Your task to perform on an android device: Play the last video I watched on Youtube Image 0: 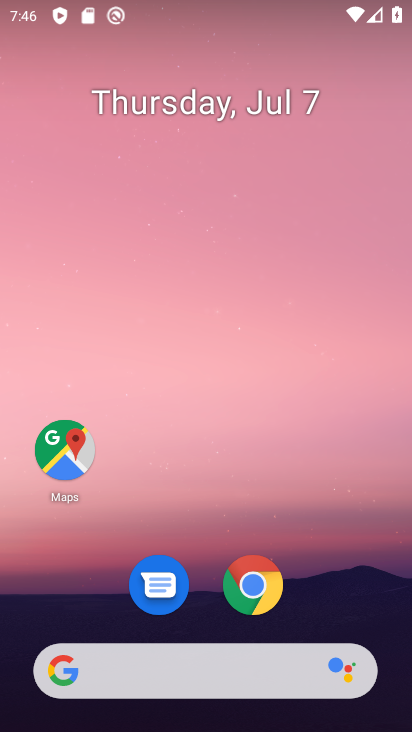
Step 0: drag from (212, 492) to (219, 23)
Your task to perform on an android device: Play the last video I watched on Youtube Image 1: 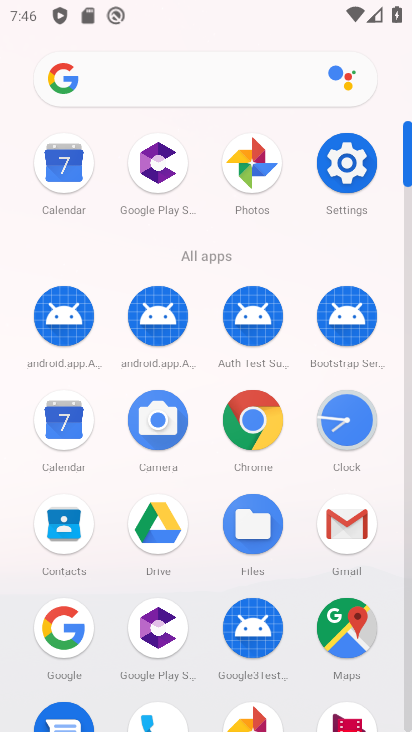
Step 1: drag from (201, 511) to (220, 137)
Your task to perform on an android device: Play the last video I watched on Youtube Image 2: 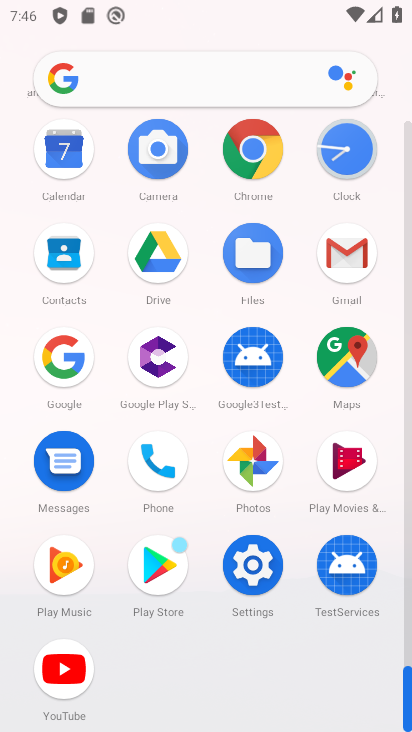
Step 2: click (76, 662)
Your task to perform on an android device: Play the last video I watched on Youtube Image 3: 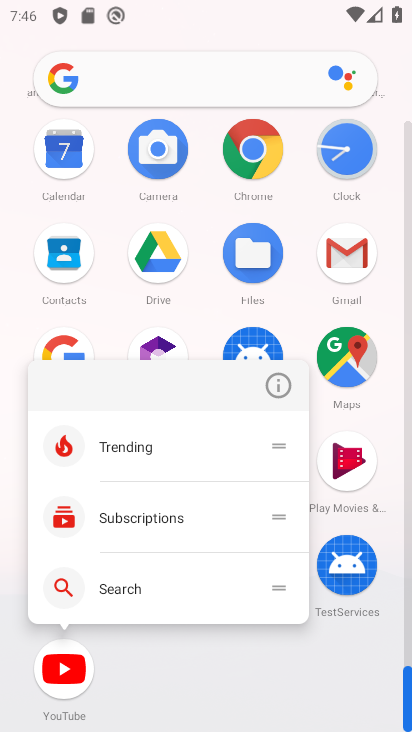
Step 3: click (76, 662)
Your task to perform on an android device: Play the last video I watched on Youtube Image 4: 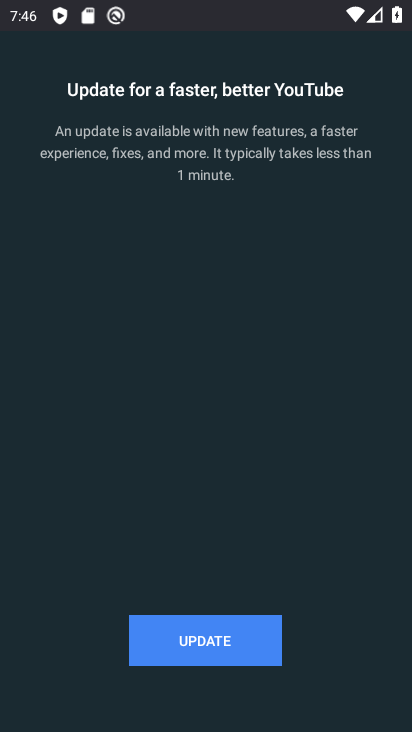
Step 4: click (218, 653)
Your task to perform on an android device: Play the last video I watched on Youtube Image 5: 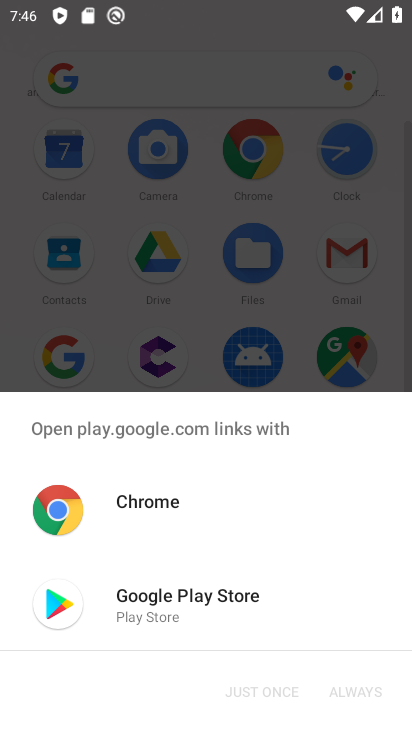
Step 5: click (196, 597)
Your task to perform on an android device: Play the last video I watched on Youtube Image 6: 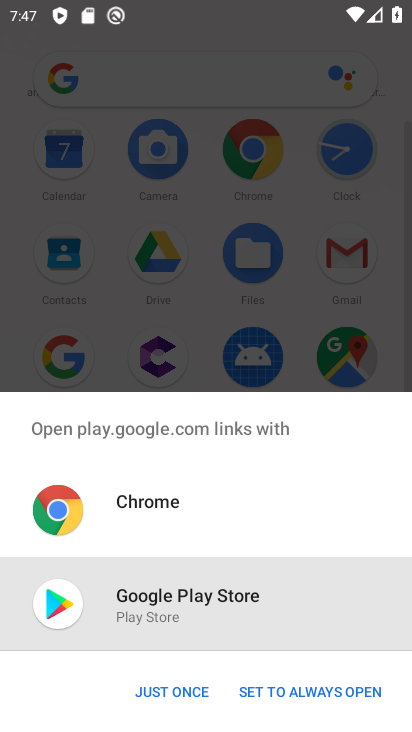
Step 6: click (174, 690)
Your task to perform on an android device: Play the last video I watched on Youtube Image 7: 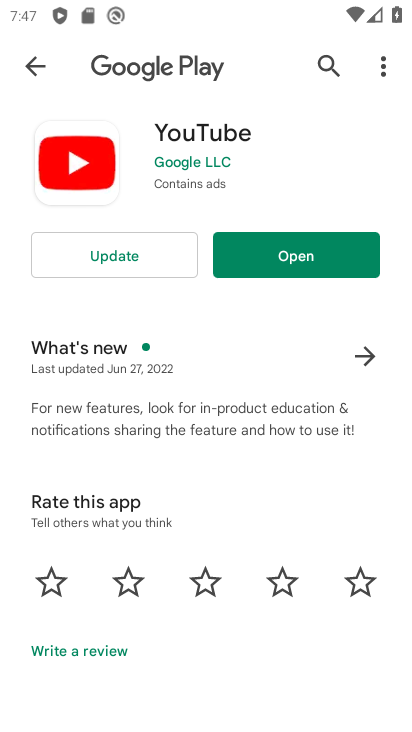
Step 7: click (172, 256)
Your task to perform on an android device: Play the last video I watched on Youtube Image 8: 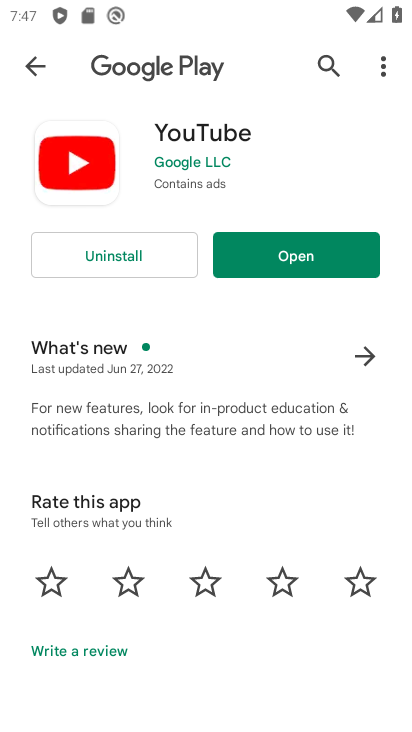
Step 8: click (321, 266)
Your task to perform on an android device: Play the last video I watched on Youtube Image 9: 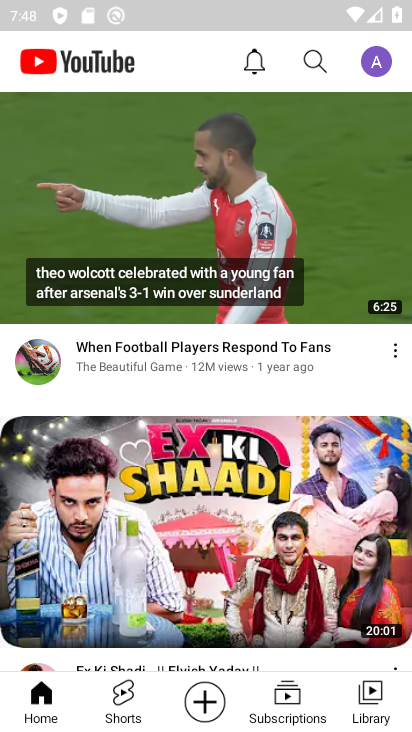
Step 9: click (364, 685)
Your task to perform on an android device: Play the last video I watched on Youtube Image 10: 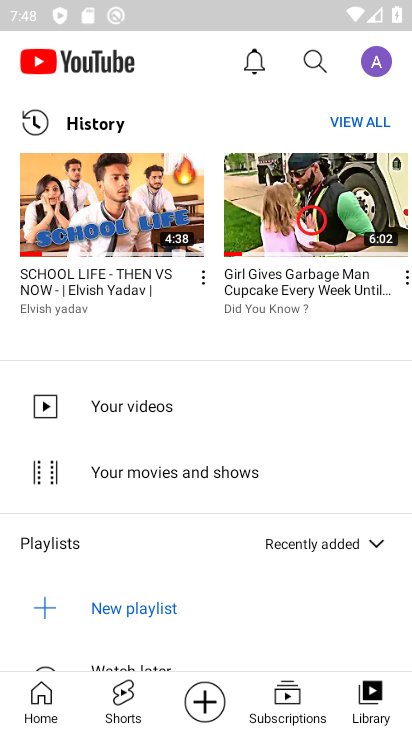
Step 10: click (123, 217)
Your task to perform on an android device: Play the last video I watched on Youtube Image 11: 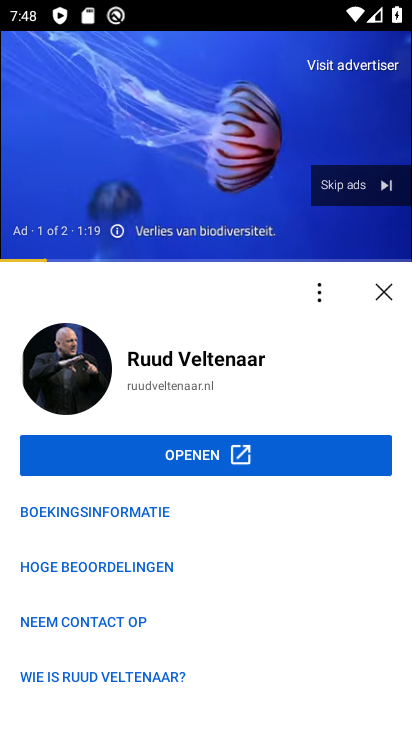
Step 11: click (337, 185)
Your task to perform on an android device: Play the last video I watched on Youtube Image 12: 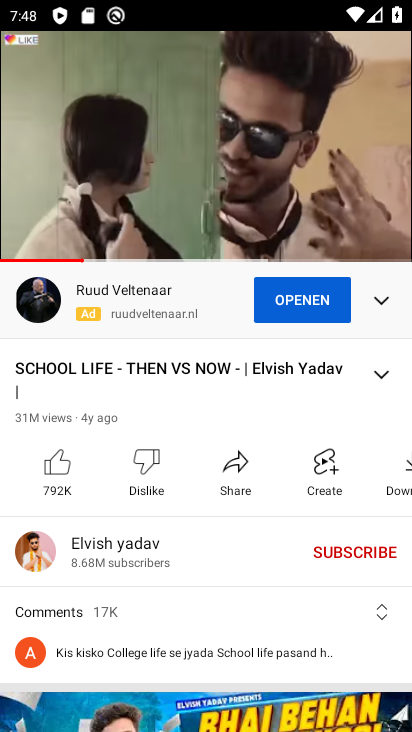
Step 12: task complete